Your task to perform on an android device: Open calendar and show me the fourth week of next month Image 0: 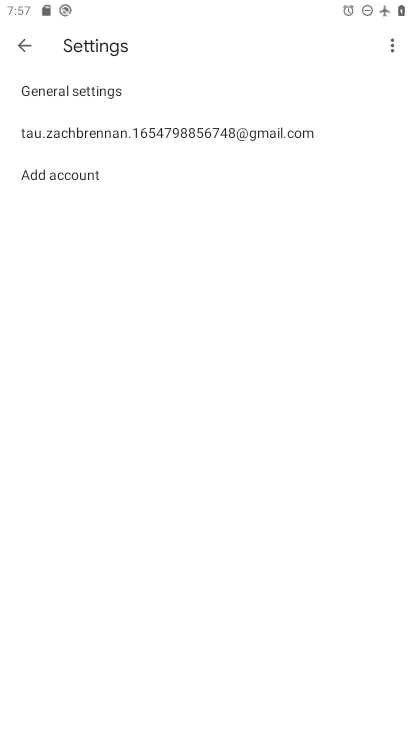
Step 0: press back button
Your task to perform on an android device: Open calendar and show me the fourth week of next month Image 1: 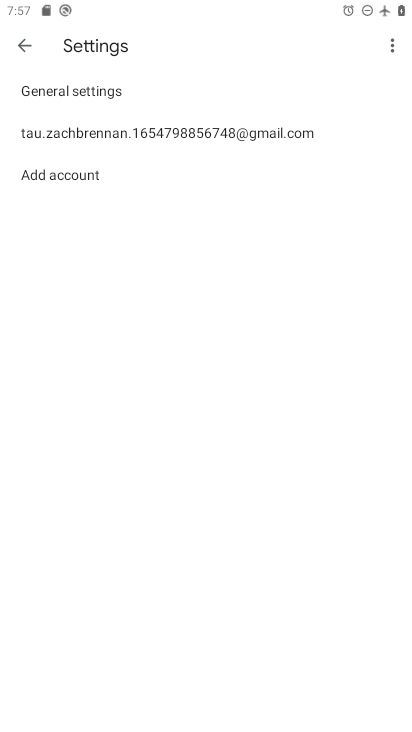
Step 1: press home button
Your task to perform on an android device: Open calendar and show me the fourth week of next month Image 2: 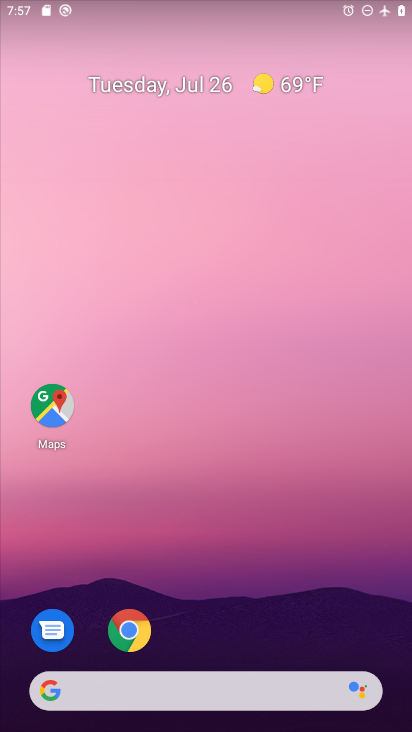
Step 2: drag from (264, 593) to (223, 157)
Your task to perform on an android device: Open calendar and show me the fourth week of next month Image 3: 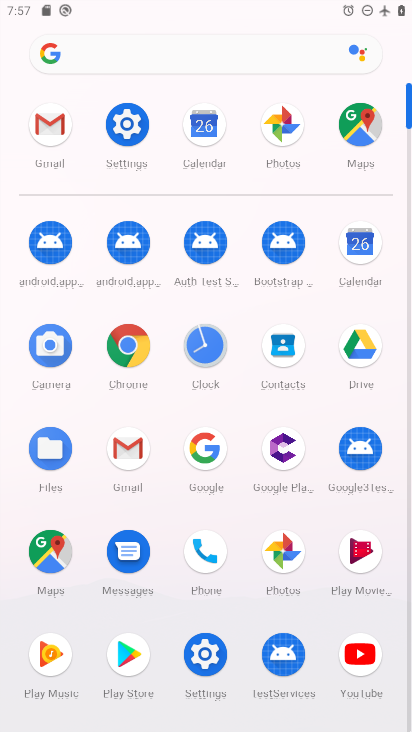
Step 3: click (366, 259)
Your task to perform on an android device: Open calendar and show me the fourth week of next month Image 4: 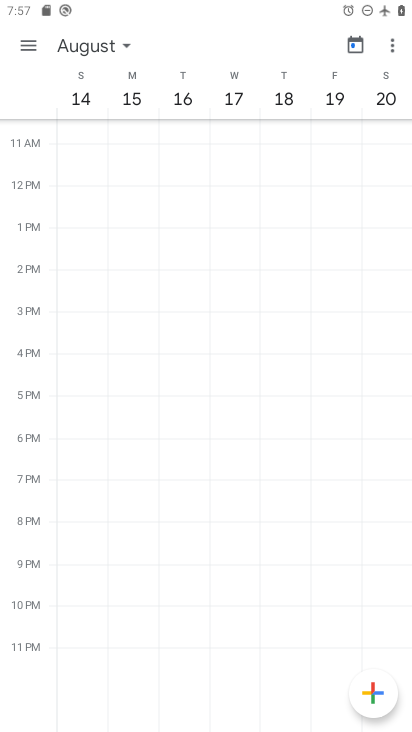
Step 4: click (121, 41)
Your task to perform on an android device: Open calendar and show me the fourth week of next month Image 5: 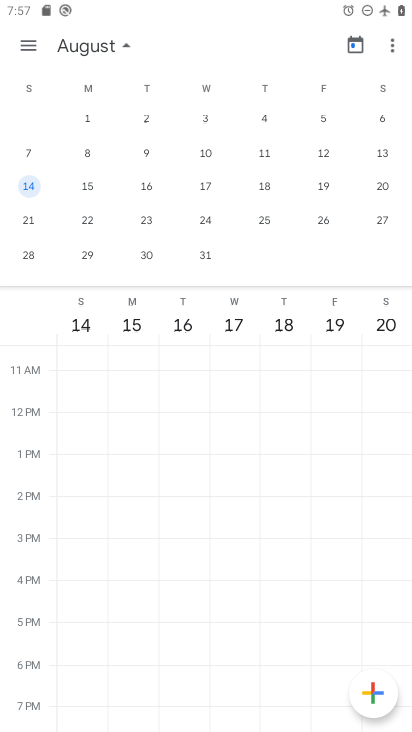
Step 5: click (33, 222)
Your task to perform on an android device: Open calendar and show me the fourth week of next month Image 6: 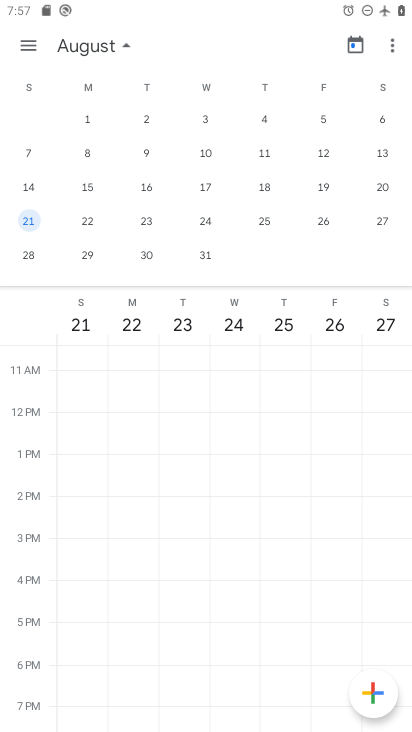
Step 6: click (125, 37)
Your task to perform on an android device: Open calendar and show me the fourth week of next month Image 7: 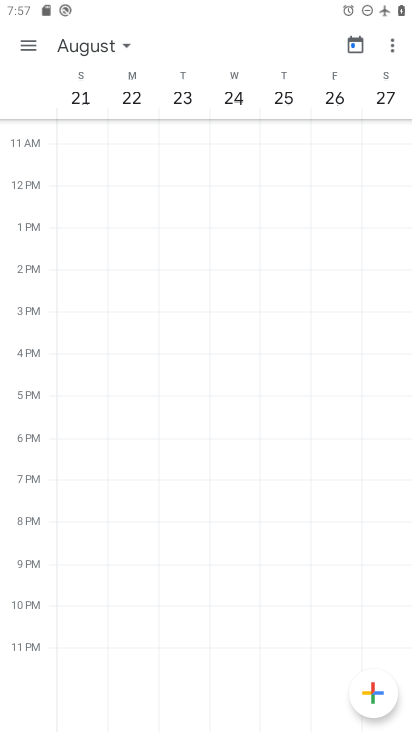
Step 7: task complete